Your task to perform on an android device: toggle javascript in the chrome app Image 0: 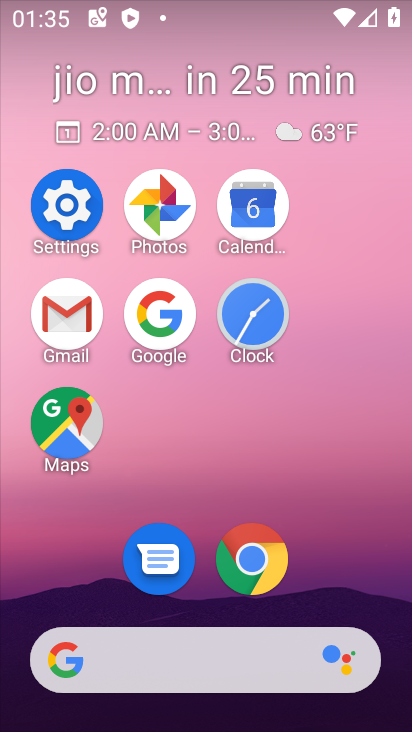
Step 0: click (270, 551)
Your task to perform on an android device: toggle javascript in the chrome app Image 1: 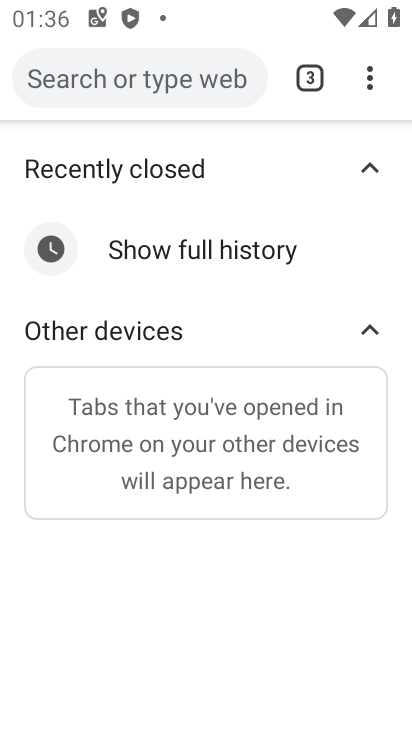
Step 1: click (375, 79)
Your task to perform on an android device: toggle javascript in the chrome app Image 2: 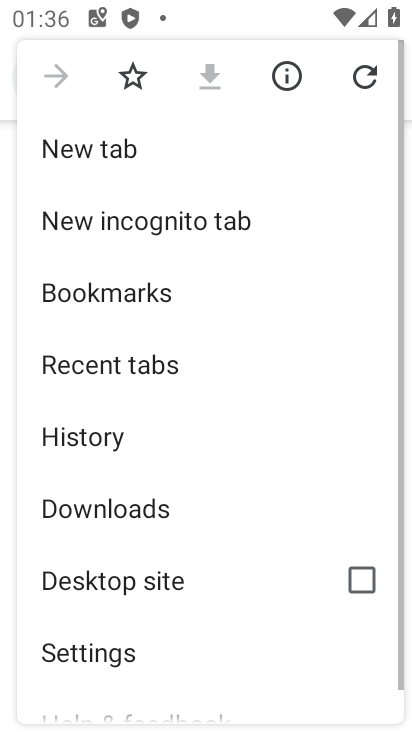
Step 2: drag from (220, 597) to (229, 205)
Your task to perform on an android device: toggle javascript in the chrome app Image 3: 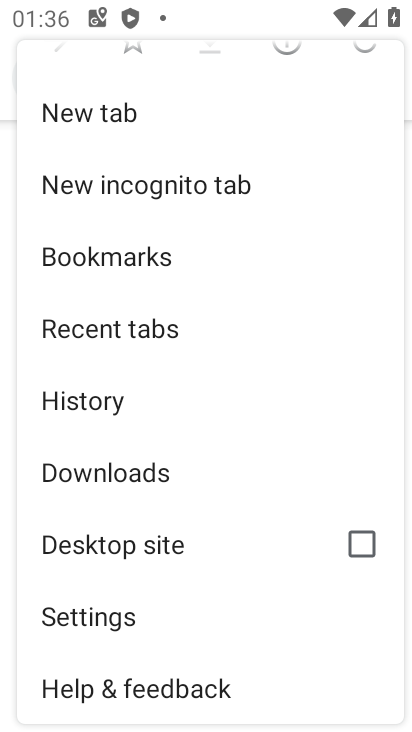
Step 3: click (196, 610)
Your task to perform on an android device: toggle javascript in the chrome app Image 4: 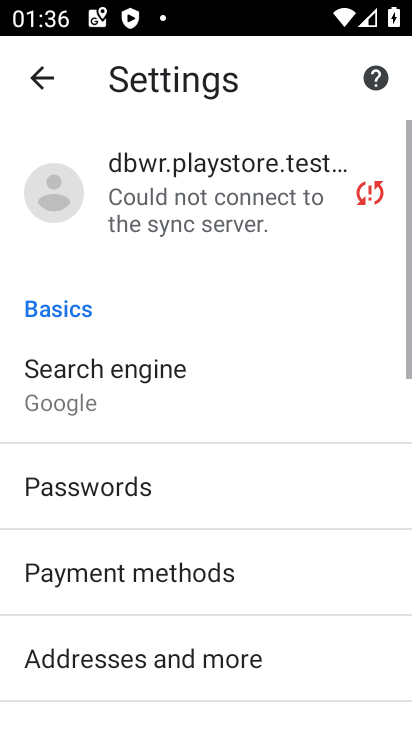
Step 4: drag from (196, 610) to (242, 232)
Your task to perform on an android device: toggle javascript in the chrome app Image 5: 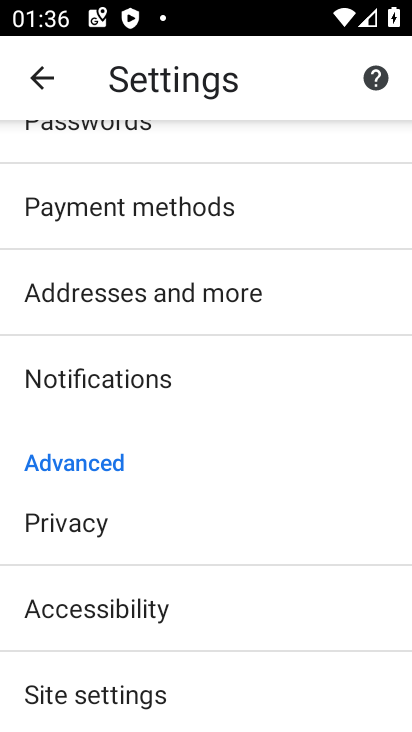
Step 5: drag from (218, 375) to (221, 241)
Your task to perform on an android device: toggle javascript in the chrome app Image 6: 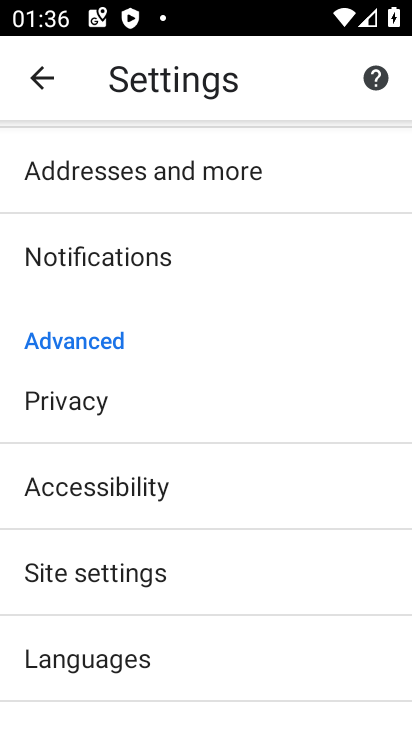
Step 6: click (194, 567)
Your task to perform on an android device: toggle javascript in the chrome app Image 7: 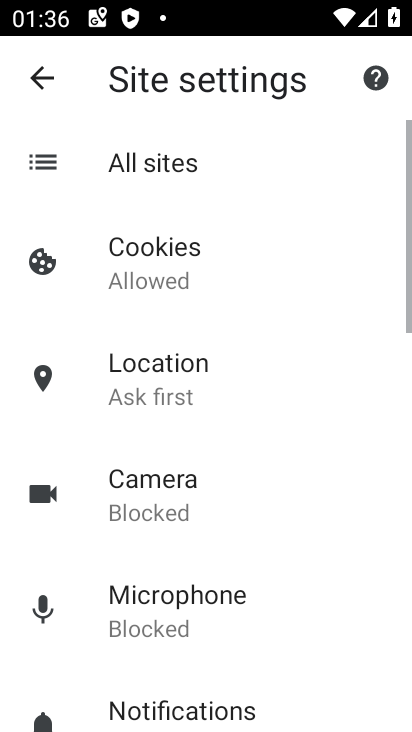
Step 7: drag from (224, 647) to (235, 202)
Your task to perform on an android device: toggle javascript in the chrome app Image 8: 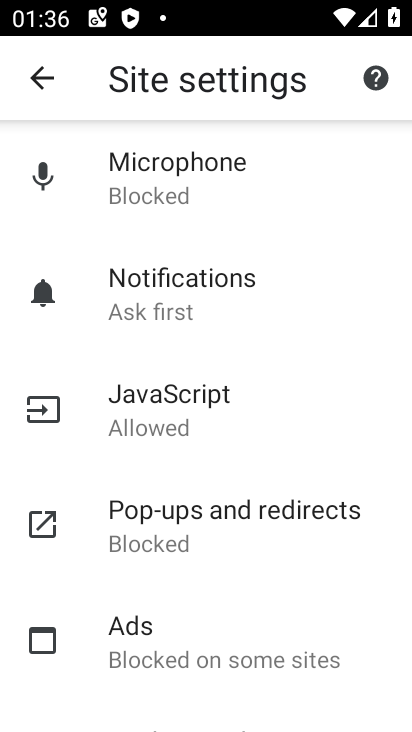
Step 8: drag from (230, 569) to (247, 286)
Your task to perform on an android device: toggle javascript in the chrome app Image 9: 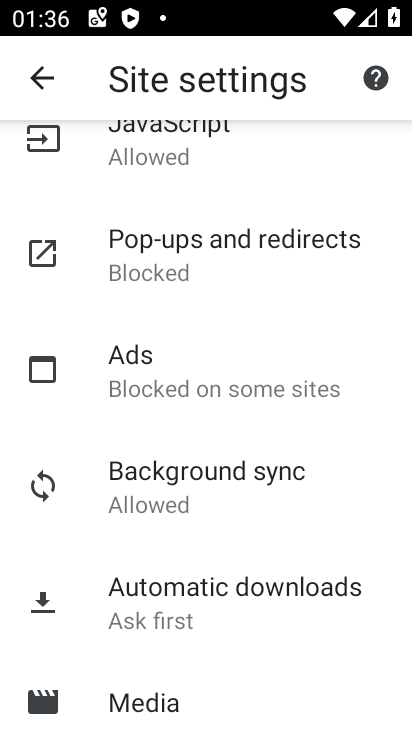
Step 9: click (223, 154)
Your task to perform on an android device: toggle javascript in the chrome app Image 10: 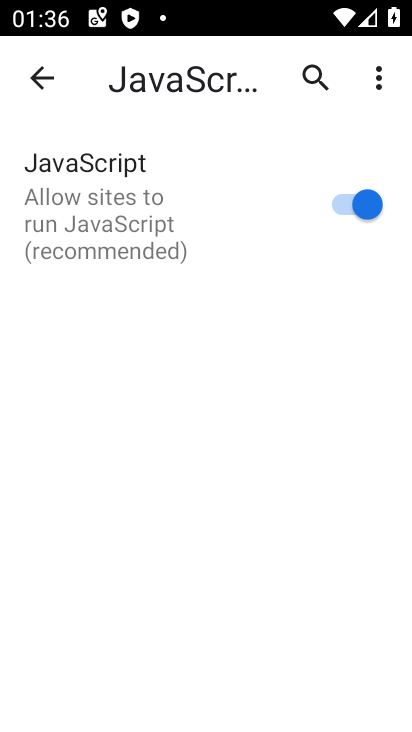
Step 10: click (358, 211)
Your task to perform on an android device: toggle javascript in the chrome app Image 11: 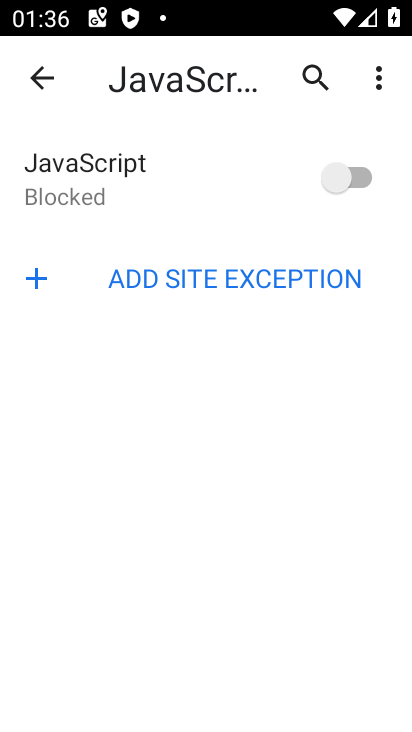
Step 11: task complete